Your task to perform on an android device: change keyboard looks Image 0: 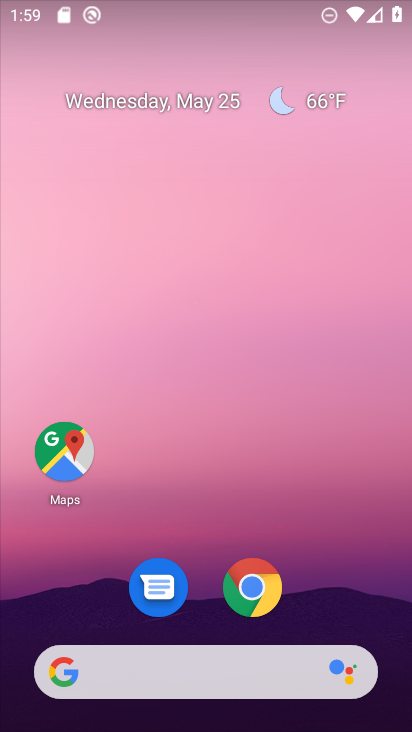
Step 0: drag from (365, 612) to (373, 228)
Your task to perform on an android device: change keyboard looks Image 1: 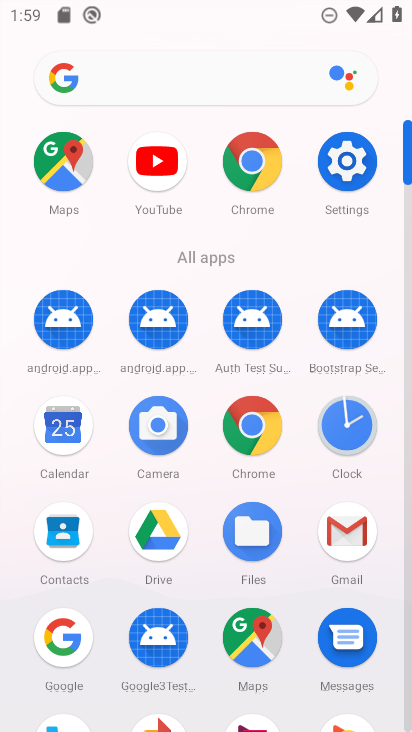
Step 1: click (352, 172)
Your task to perform on an android device: change keyboard looks Image 2: 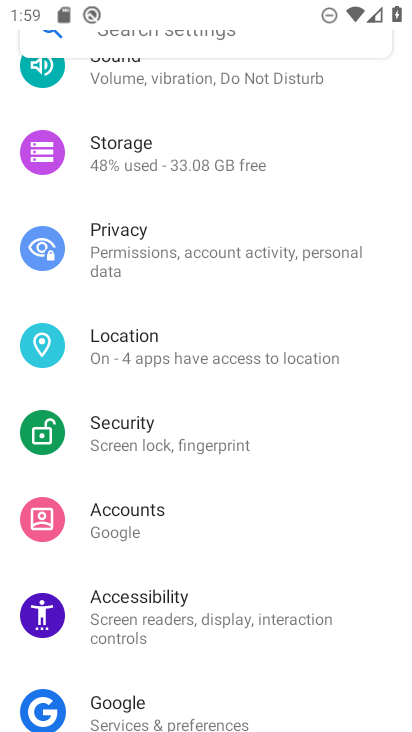
Step 2: drag from (360, 632) to (365, 564)
Your task to perform on an android device: change keyboard looks Image 3: 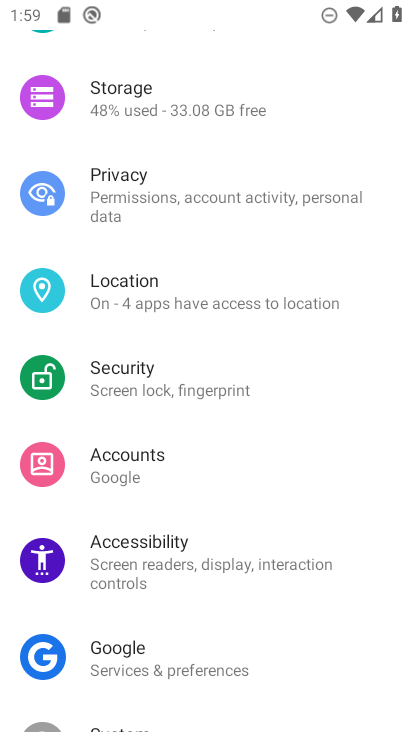
Step 3: drag from (356, 646) to (356, 520)
Your task to perform on an android device: change keyboard looks Image 4: 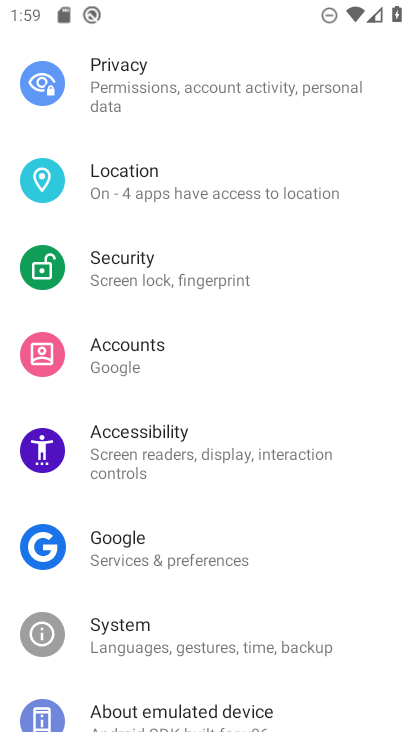
Step 4: drag from (358, 630) to (368, 525)
Your task to perform on an android device: change keyboard looks Image 5: 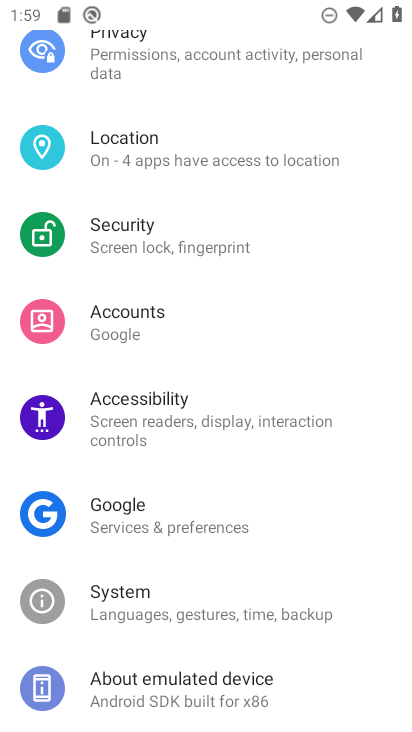
Step 5: drag from (361, 636) to (361, 599)
Your task to perform on an android device: change keyboard looks Image 6: 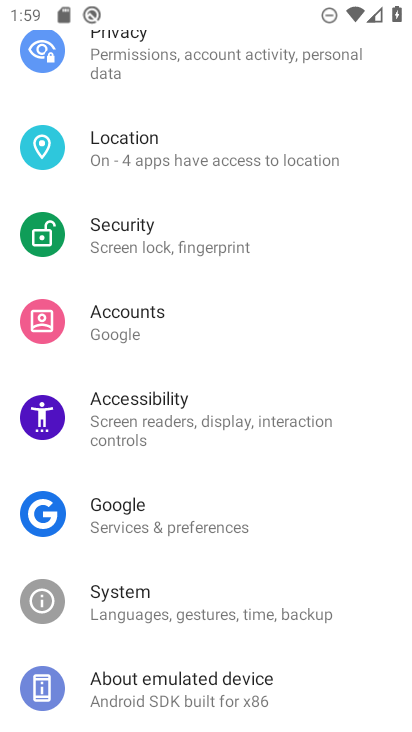
Step 6: click (301, 613)
Your task to perform on an android device: change keyboard looks Image 7: 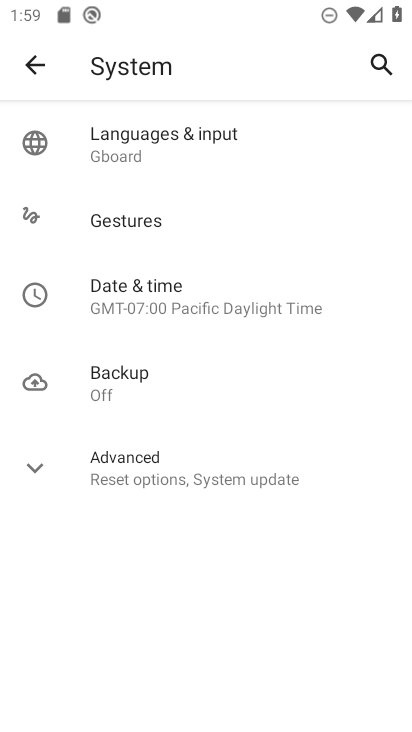
Step 7: click (197, 180)
Your task to perform on an android device: change keyboard looks Image 8: 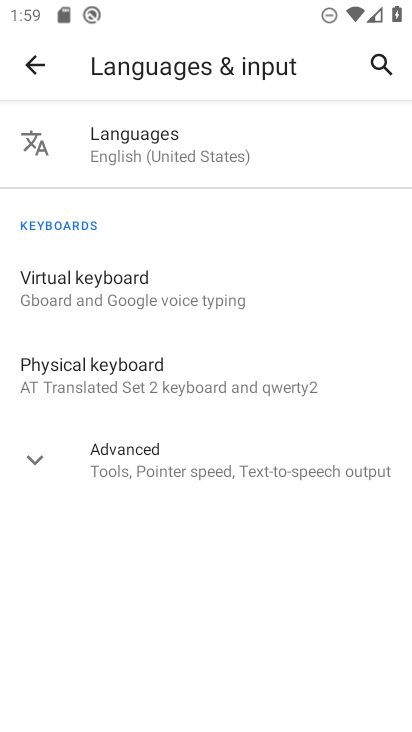
Step 8: click (143, 284)
Your task to perform on an android device: change keyboard looks Image 9: 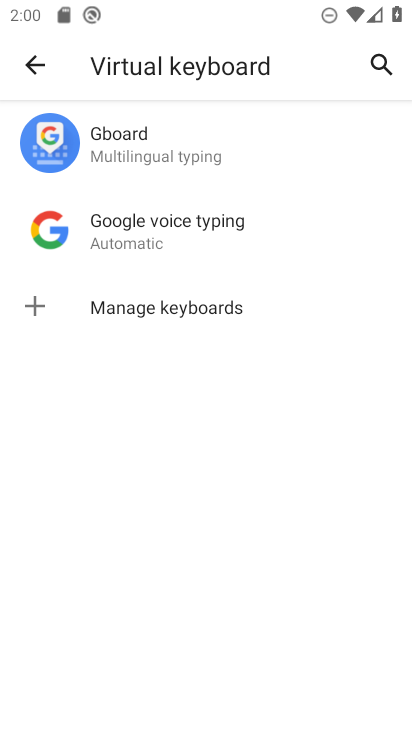
Step 9: click (198, 173)
Your task to perform on an android device: change keyboard looks Image 10: 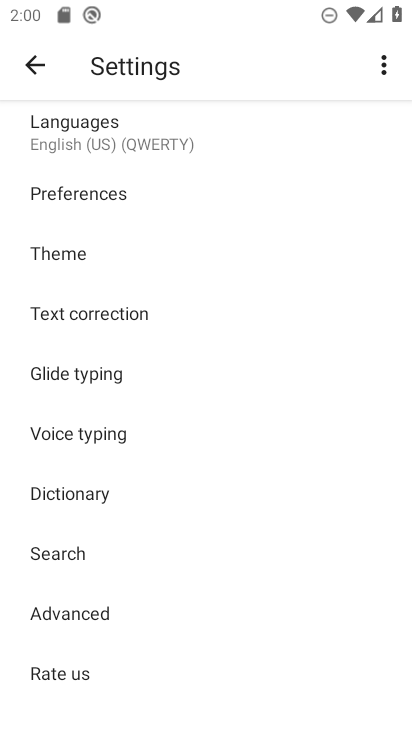
Step 10: click (93, 258)
Your task to perform on an android device: change keyboard looks Image 11: 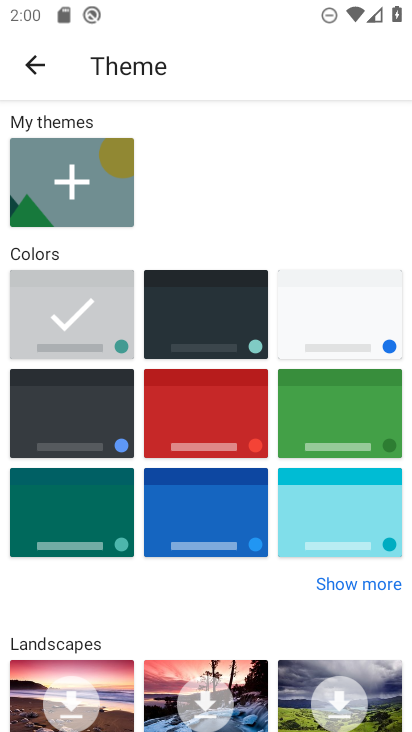
Step 11: click (217, 397)
Your task to perform on an android device: change keyboard looks Image 12: 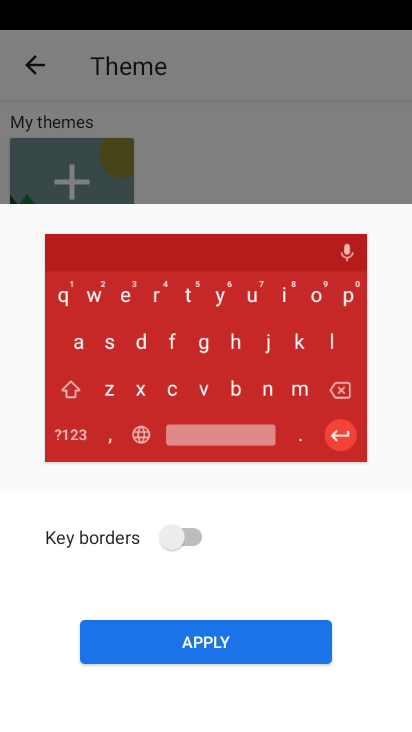
Step 12: click (243, 639)
Your task to perform on an android device: change keyboard looks Image 13: 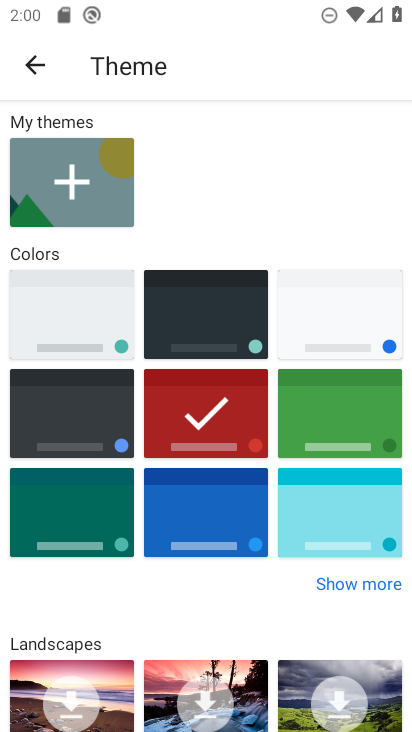
Step 13: task complete